Your task to perform on an android device: set the timer Image 0: 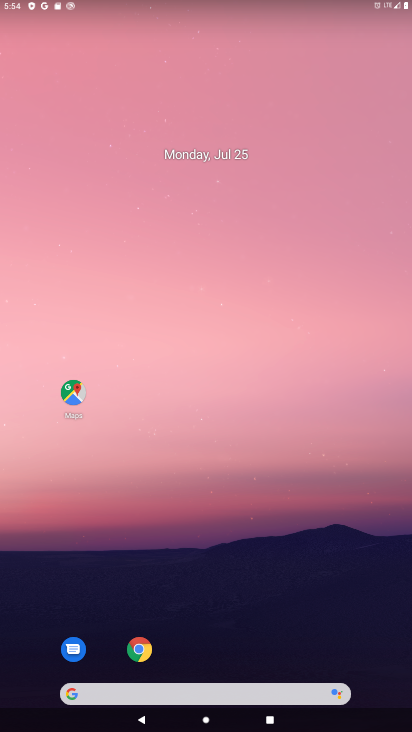
Step 0: drag from (301, 635) to (302, 24)
Your task to perform on an android device: set the timer Image 1: 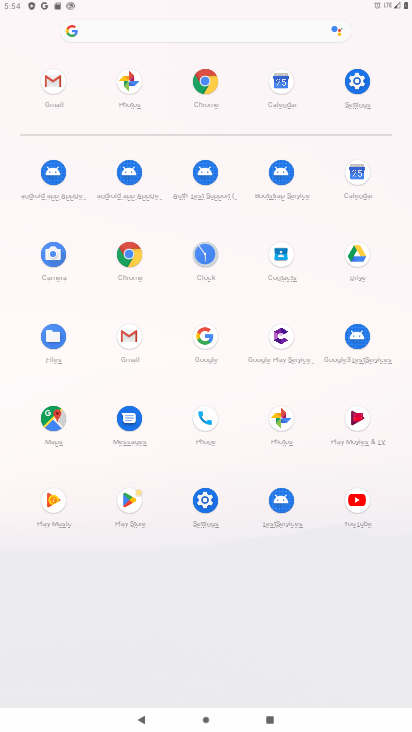
Step 1: click (200, 259)
Your task to perform on an android device: set the timer Image 2: 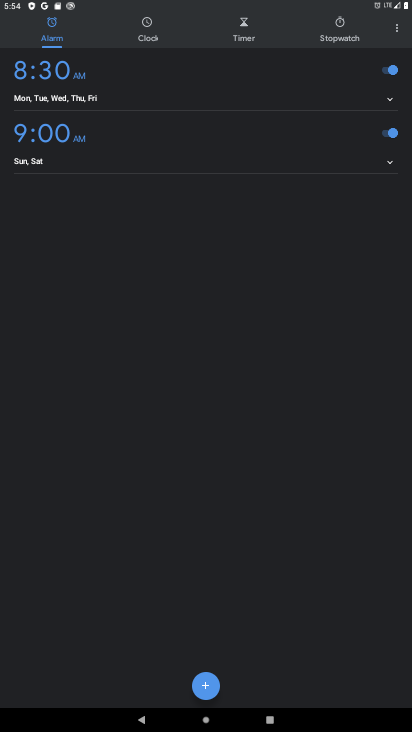
Step 2: click (243, 18)
Your task to perform on an android device: set the timer Image 3: 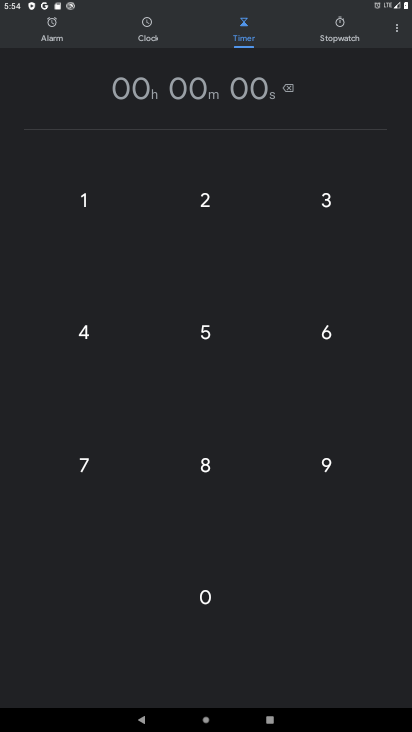
Step 3: click (206, 466)
Your task to perform on an android device: set the timer Image 4: 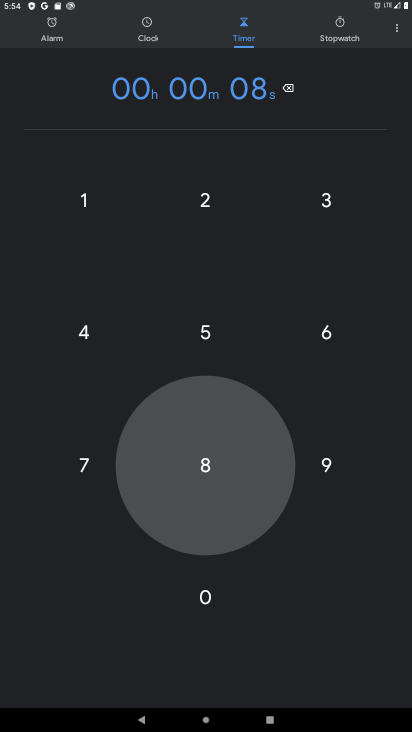
Step 4: click (333, 473)
Your task to perform on an android device: set the timer Image 5: 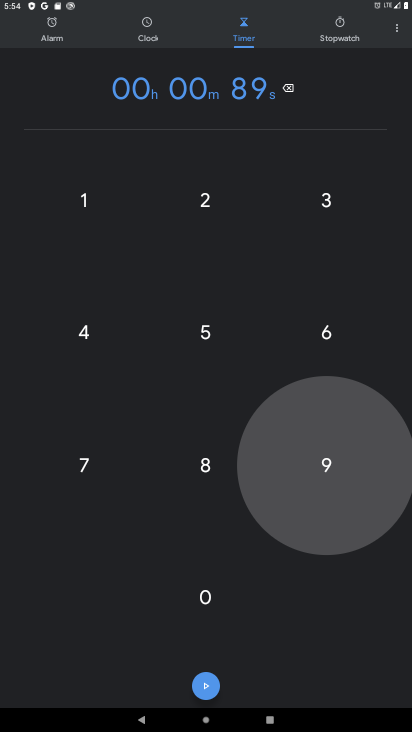
Step 5: click (208, 331)
Your task to perform on an android device: set the timer Image 6: 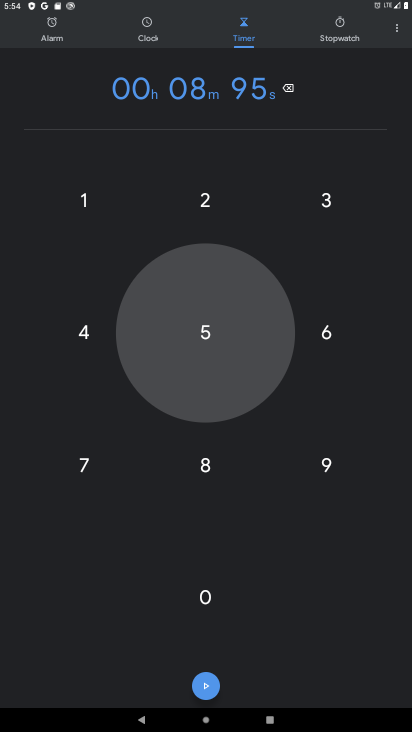
Step 6: click (333, 339)
Your task to perform on an android device: set the timer Image 7: 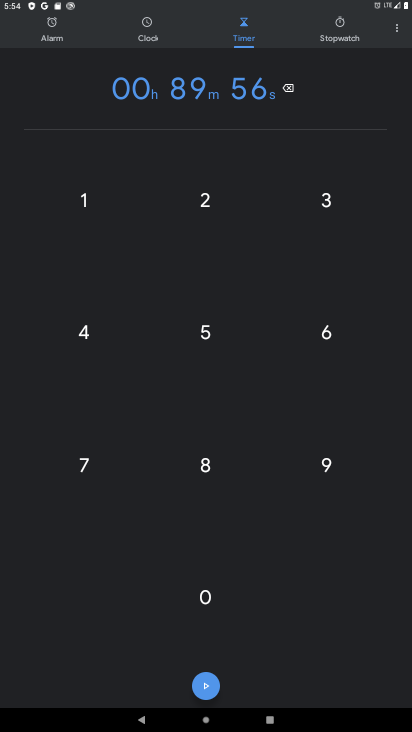
Step 7: click (209, 214)
Your task to perform on an android device: set the timer Image 8: 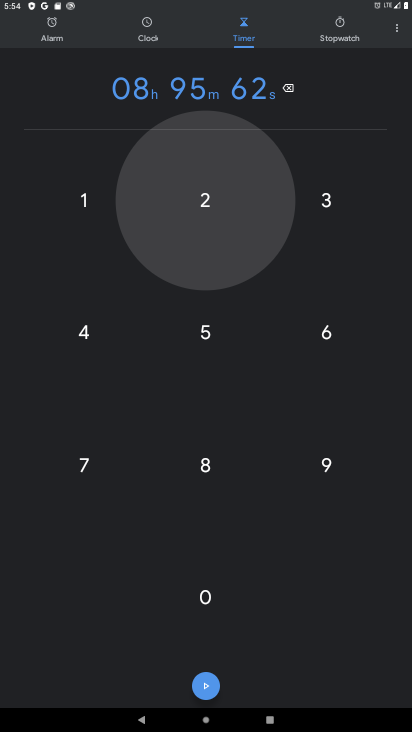
Step 8: click (299, 196)
Your task to perform on an android device: set the timer Image 9: 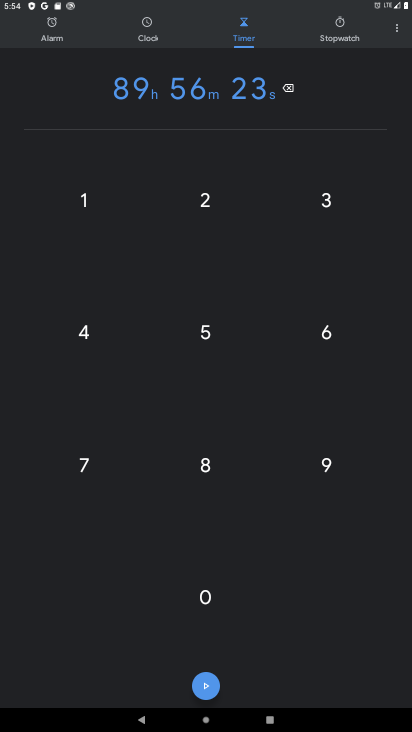
Step 9: click (200, 694)
Your task to perform on an android device: set the timer Image 10: 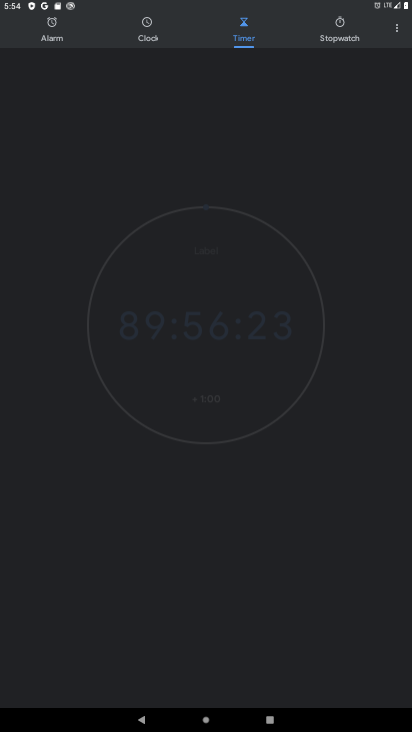
Step 10: task complete